Your task to perform on an android device: turn on translation in the chrome app Image 0: 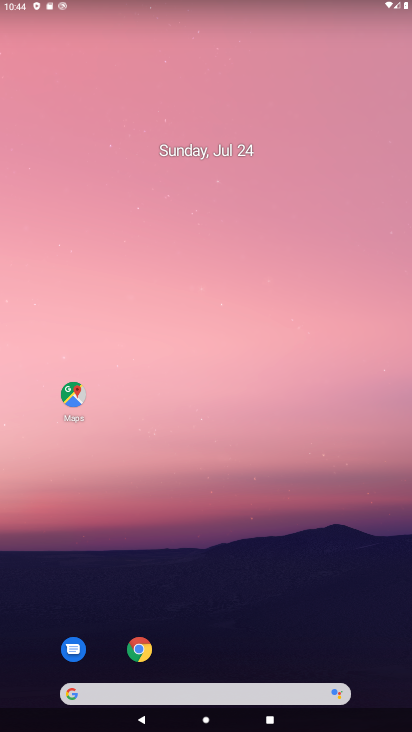
Step 0: click (143, 658)
Your task to perform on an android device: turn on translation in the chrome app Image 1: 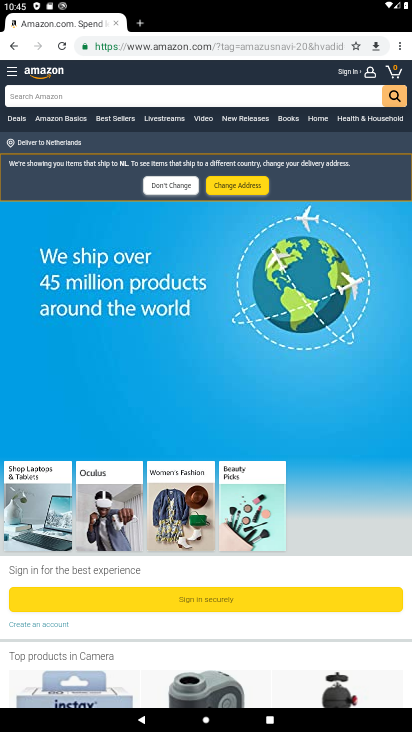
Step 1: drag from (407, 43) to (348, 309)
Your task to perform on an android device: turn on translation in the chrome app Image 2: 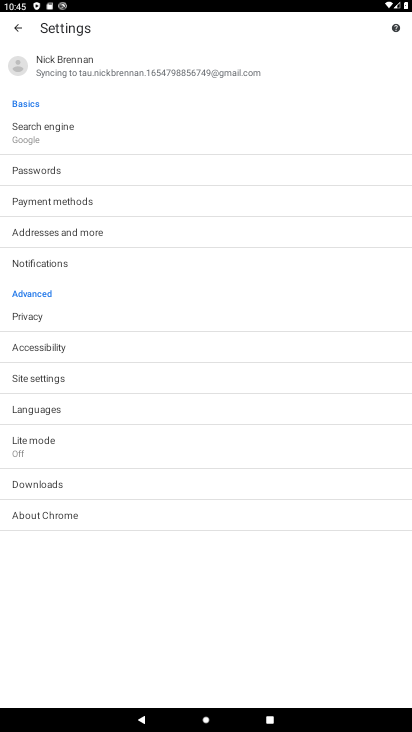
Step 2: click (62, 404)
Your task to perform on an android device: turn on translation in the chrome app Image 3: 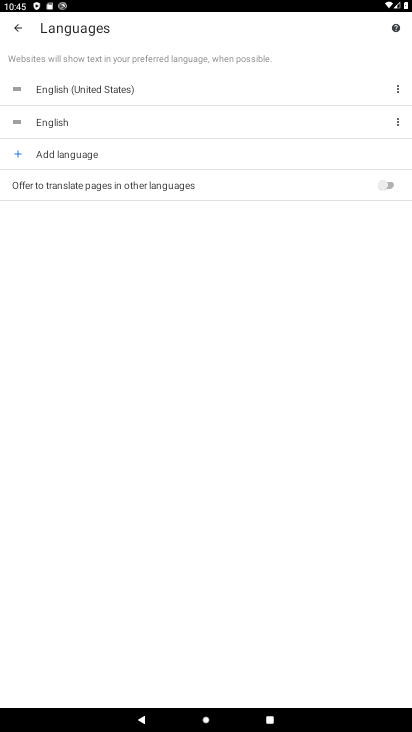
Step 3: click (387, 186)
Your task to perform on an android device: turn on translation in the chrome app Image 4: 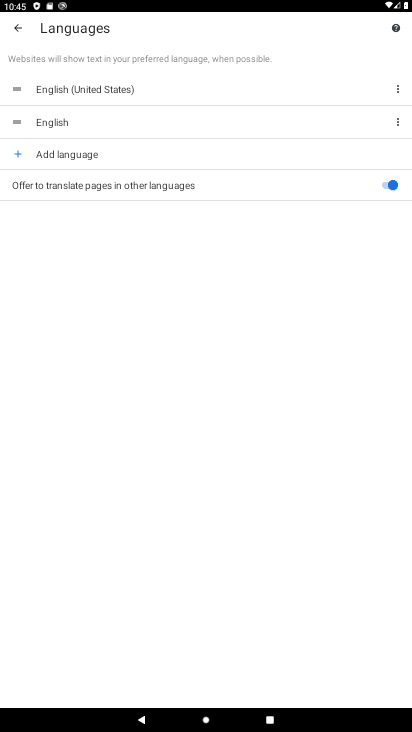
Step 4: task complete